Your task to perform on an android device: turn on location history Image 0: 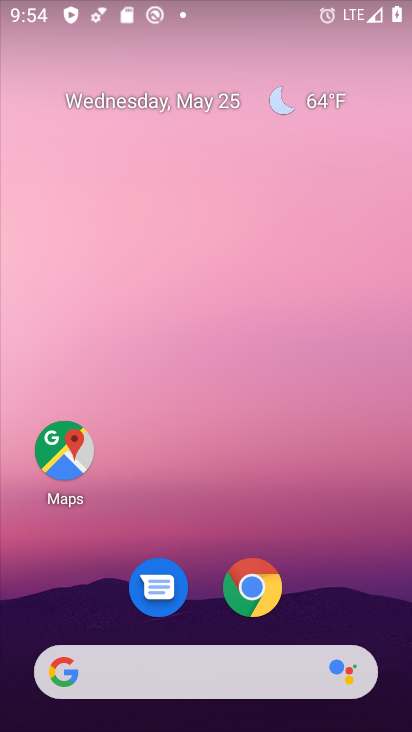
Step 0: drag from (62, 640) to (227, 162)
Your task to perform on an android device: turn on location history Image 1: 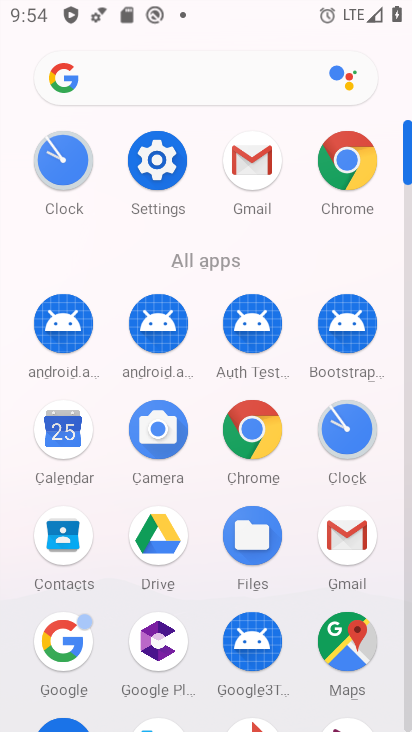
Step 1: drag from (225, 586) to (294, 327)
Your task to perform on an android device: turn on location history Image 2: 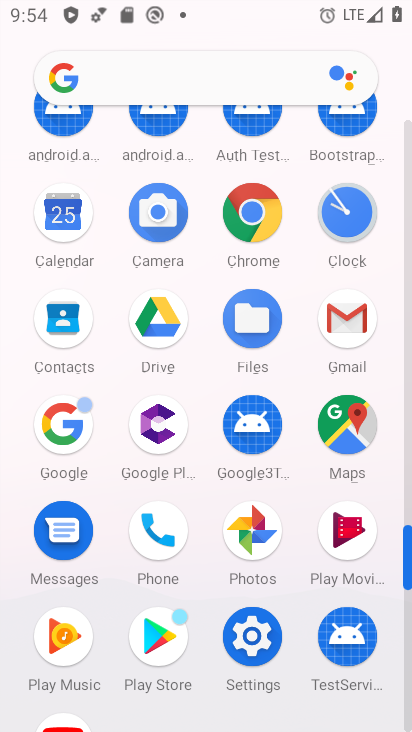
Step 2: click (252, 650)
Your task to perform on an android device: turn on location history Image 3: 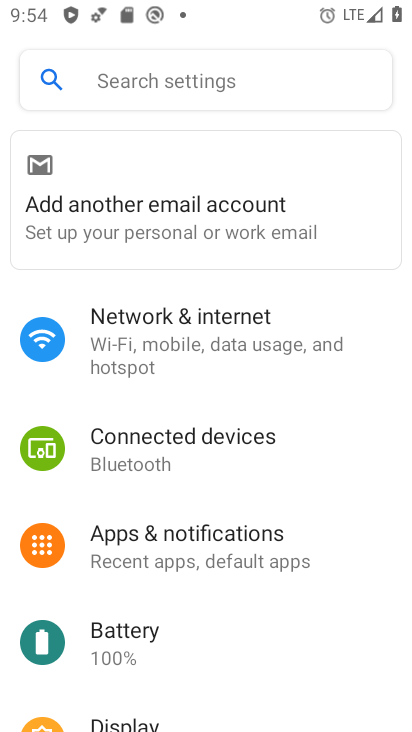
Step 3: drag from (165, 677) to (244, 394)
Your task to perform on an android device: turn on location history Image 4: 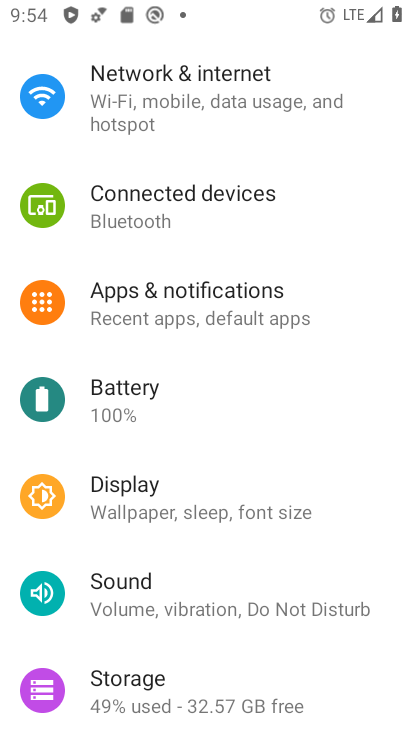
Step 4: drag from (167, 695) to (257, 373)
Your task to perform on an android device: turn on location history Image 5: 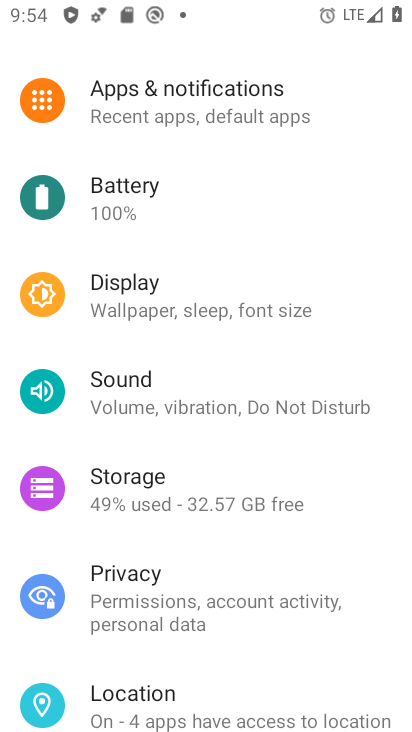
Step 5: click (220, 700)
Your task to perform on an android device: turn on location history Image 6: 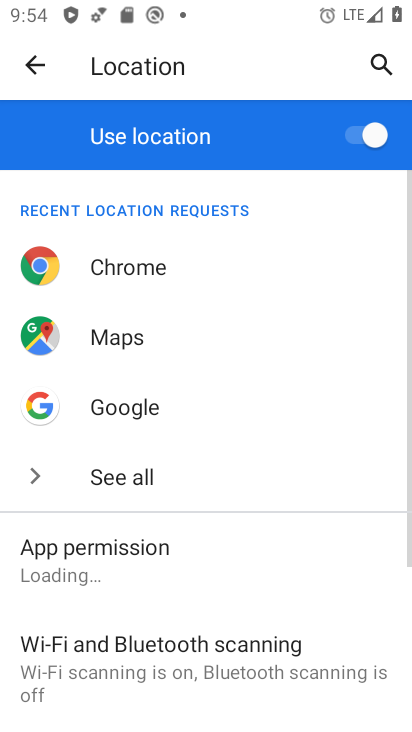
Step 6: drag from (257, 620) to (331, 343)
Your task to perform on an android device: turn on location history Image 7: 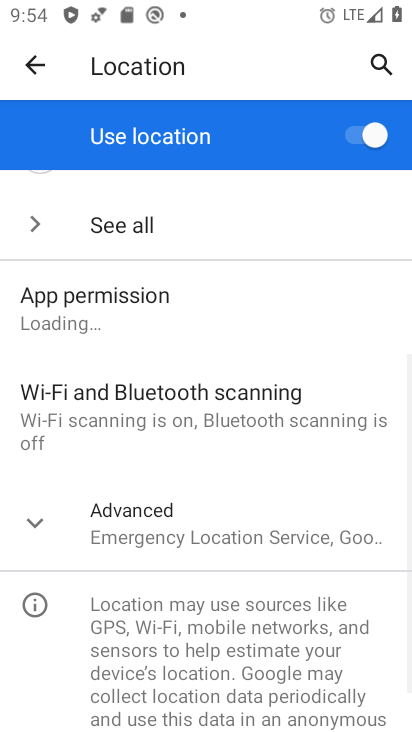
Step 7: click (266, 545)
Your task to perform on an android device: turn on location history Image 8: 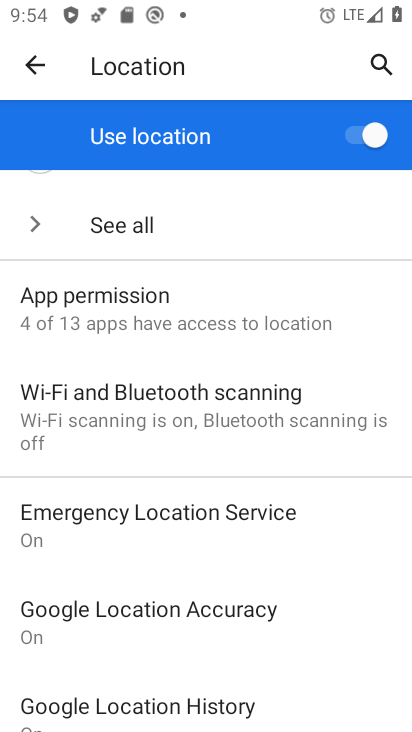
Step 8: task complete